Your task to perform on an android device: turn on the 24-hour format for clock Image 0: 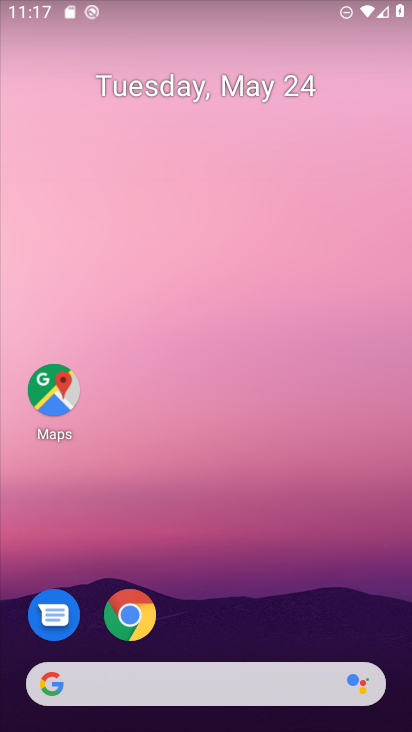
Step 0: drag from (258, 705) to (374, 34)
Your task to perform on an android device: turn on the 24-hour format for clock Image 1: 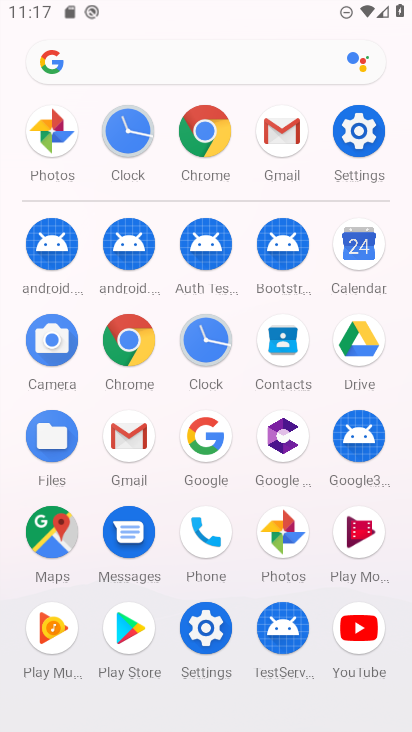
Step 1: click (146, 137)
Your task to perform on an android device: turn on the 24-hour format for clock Image 2: 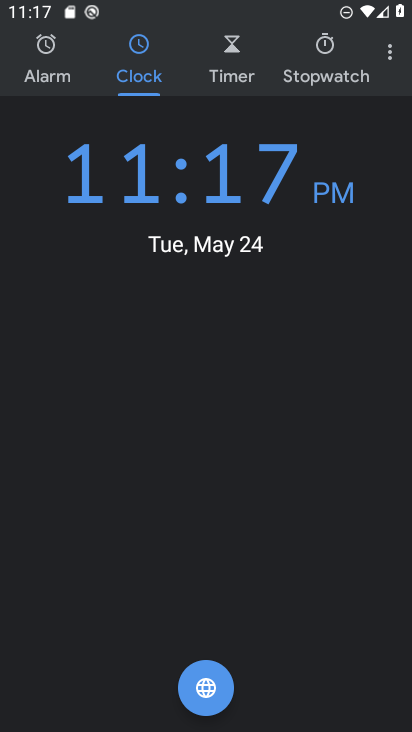
Step 2: click (388, 66)
Your task to perform on an android device: turn on the 24-hour format for clock Image 3: 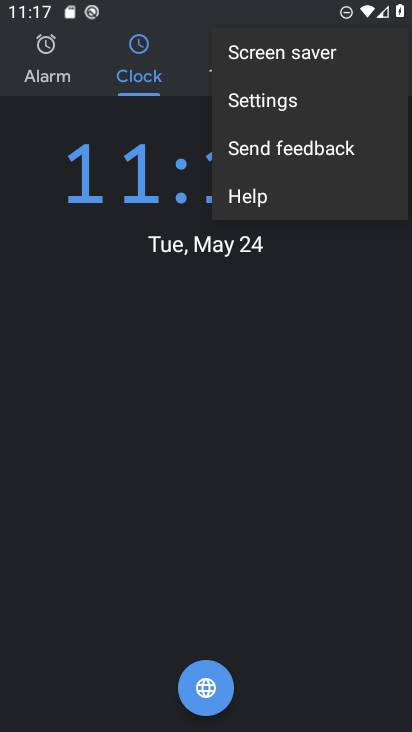
Step 3: click (293, 110)
Your task to perform on an android device: turn on the 24-hour format for clock Image 4: 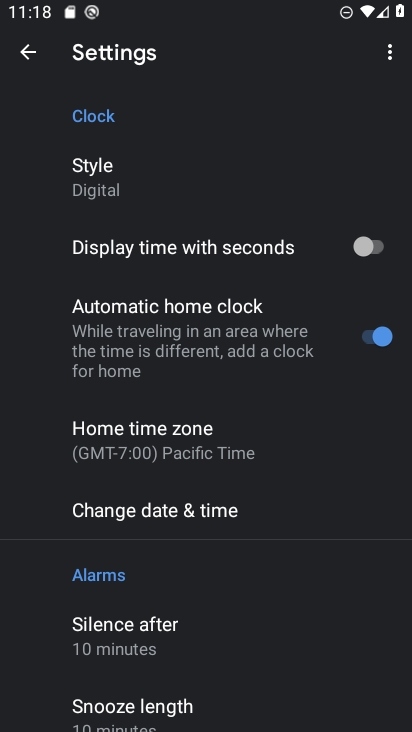
Step 4: click (147, 515)
Your task to perform on an android device: turn on the 24-hour format for clock Image 5: 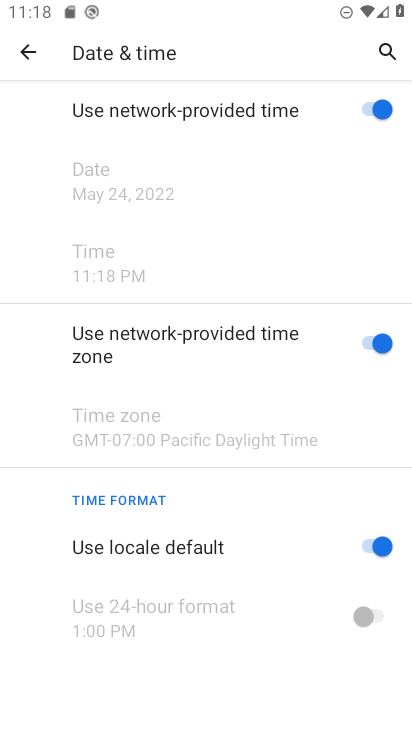
Step 5: click (358, 546)
Your task to perform on an android device: turn on the 24-hour format for clock Image 6: 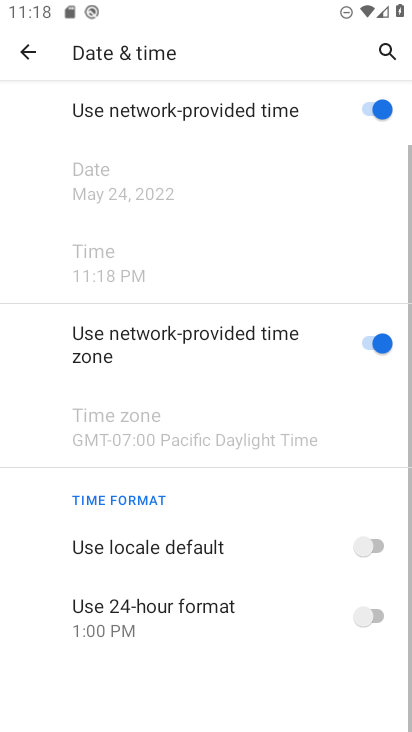
Step 6: click (380, 609)
Your task to perform on an android device: turn on the 24-hour format for clock Image 7: 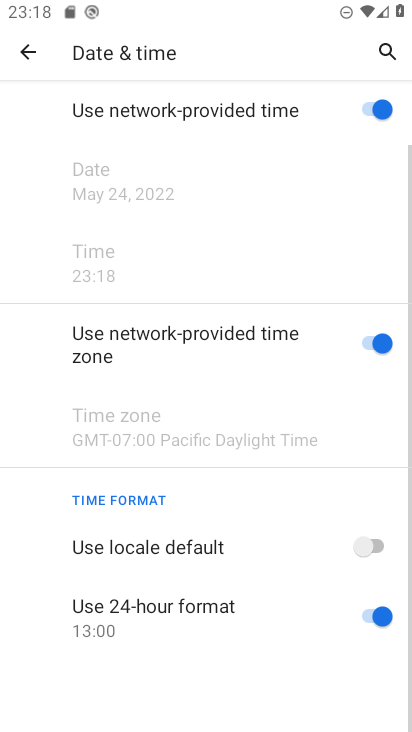
Step 7: task complete